Your task to perform on an android device: change text size in settings app Image 0: 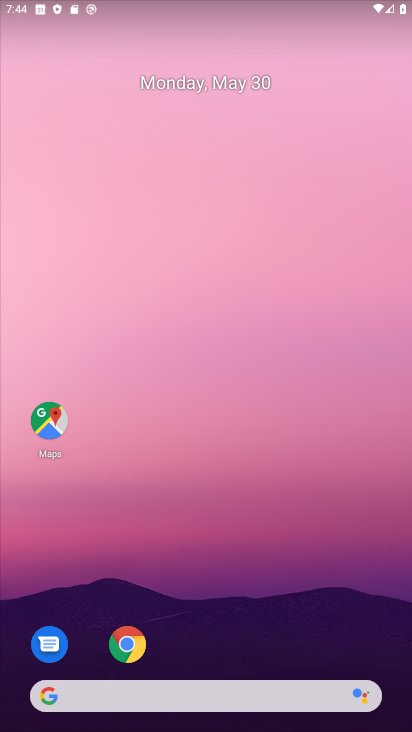
Step 0: drag from (247, 622) to (219, 146)
Your task to perform on an android device: change text size in settings app Image 1: 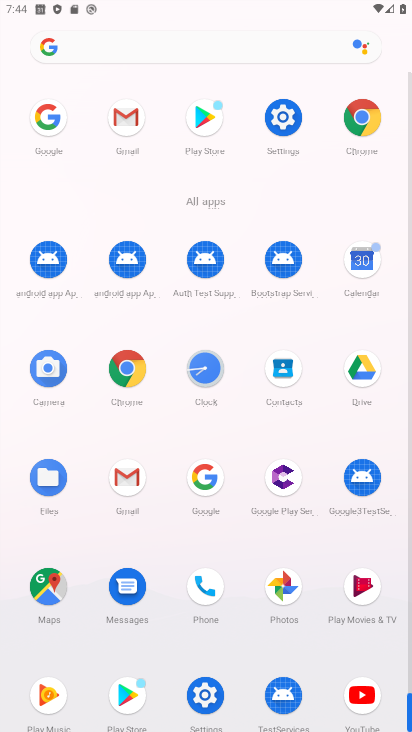
Step 1: click (283, 116)
Your task to perform on an android device: change text size in settings app Image 2: 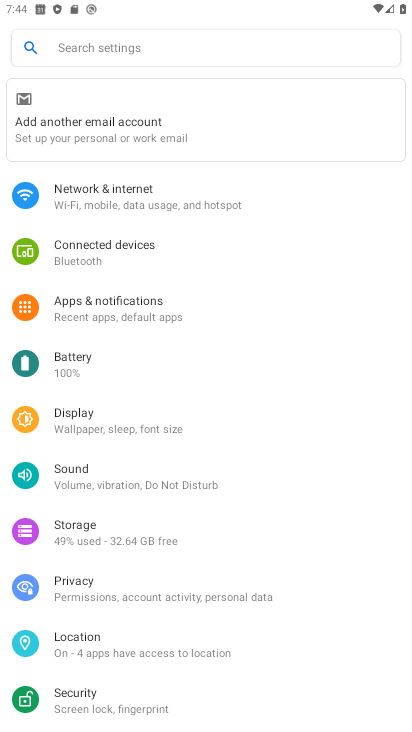
Step 2: drag from (153, 572) to (154, 488)
Your task to perform on an android device: change text size in settings app Image 3: 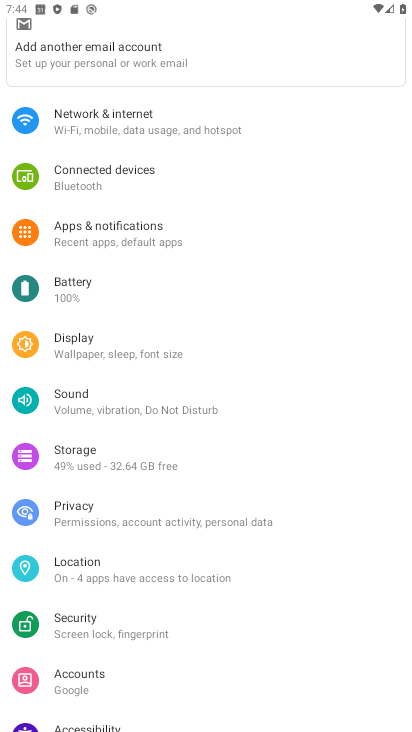
Step 3: drag from (115, 616) to (100, 515)
Your task to perform on an android device: change text size in settings app Image 4: 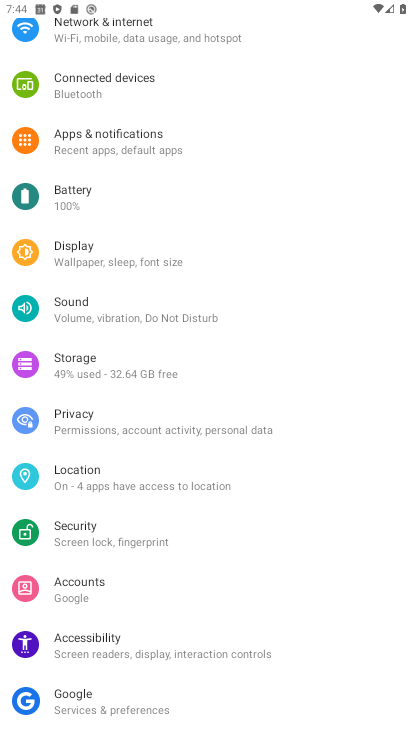
Step 4: drag from (72, 614) to (70, 513)
Your task to perform on an android device: change text size in settings app Image 5: 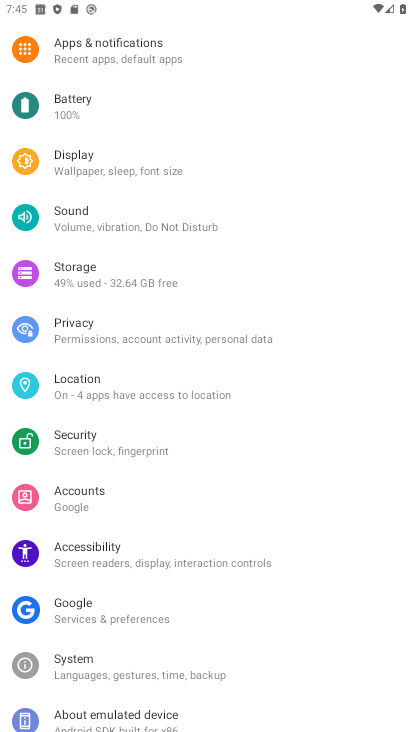
Step 5: drag from (105, 592) to (117, 543)
Your task to perform on an android device: change text size in settings app Image 6: 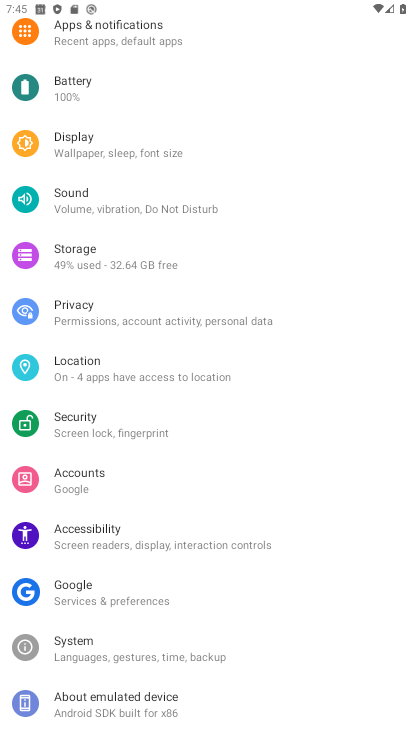
Step 6: click (119, 533)
Your task to perform on an android device: change text size in settings app Image 7: 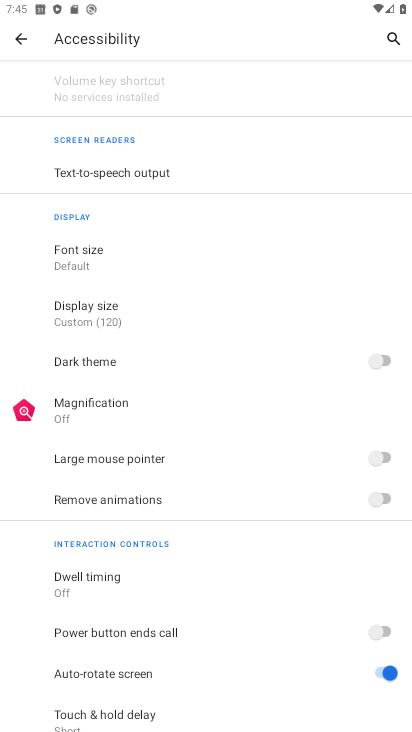
Step 7: click (79, 253)
Your task to perform on an android device: change text size in settings app Image 8: 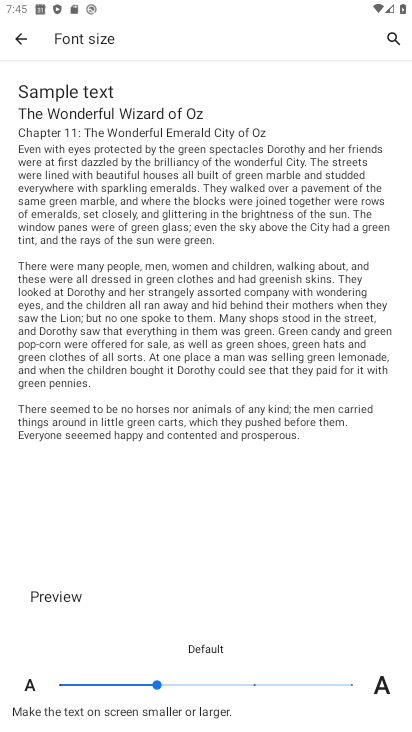
Step 8: click (261, 679)
Your task to perform on an android device: change text size in settings app Image 9: 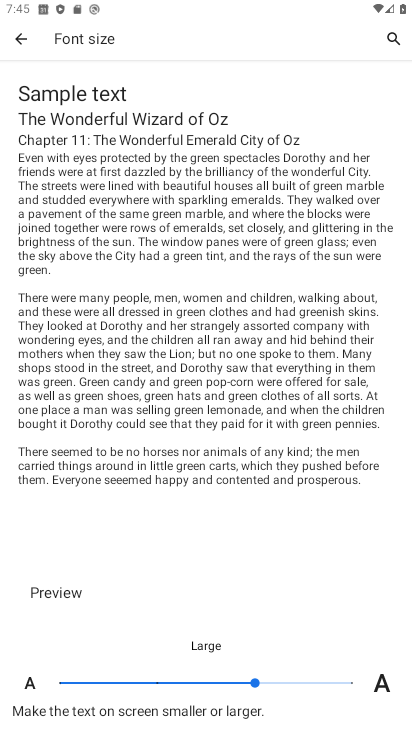
Step 9: task complete